Your task to perform on an android device: Open Google Chrome and open the bookmarks view Image 0: 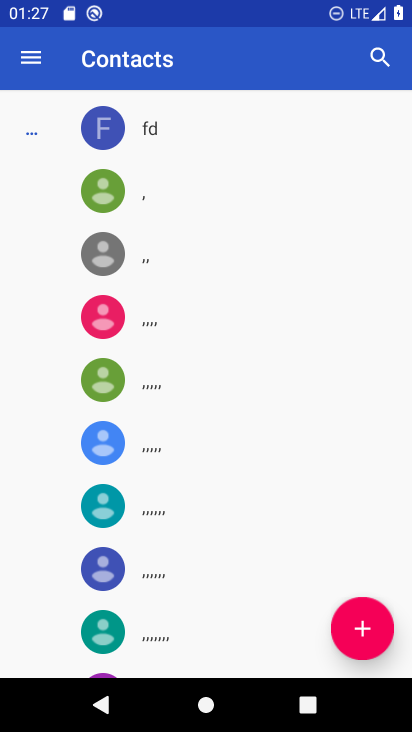
Step 0: drag from (285, 642) to (356, 226)
Your task to perform on an android device: Open Google Chrome and open the bookmarks view Image 1: 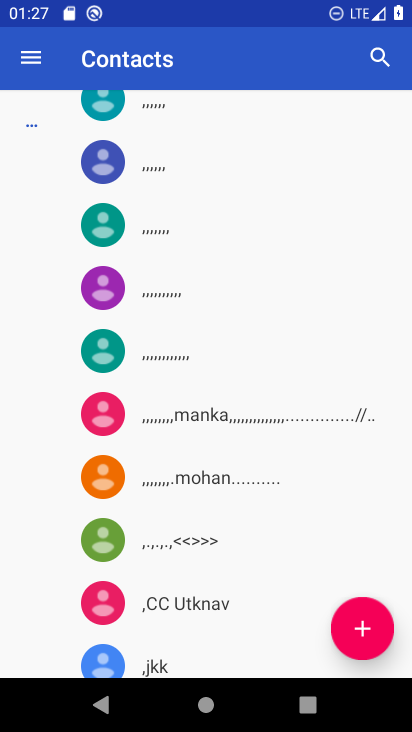
Step 1: press home button
Your task to perform on an android device: Open Google Chrome and open the bookmarks view Image 2: 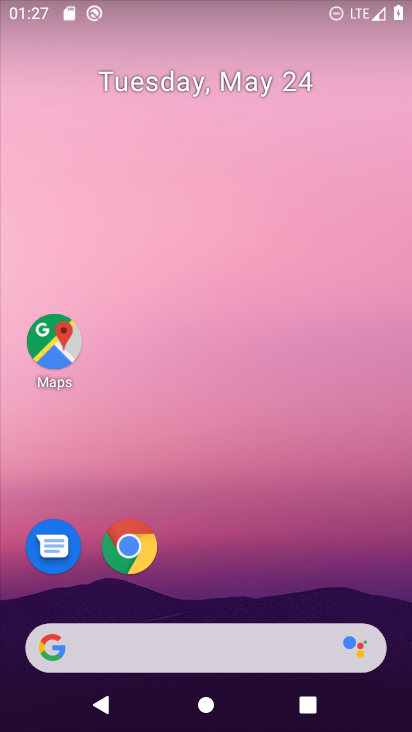
Step 2: drag from (304, 622) to (373, 7)
Your task to perform on an android device: Open Google Chrome and open the bookmarks view Image 3: 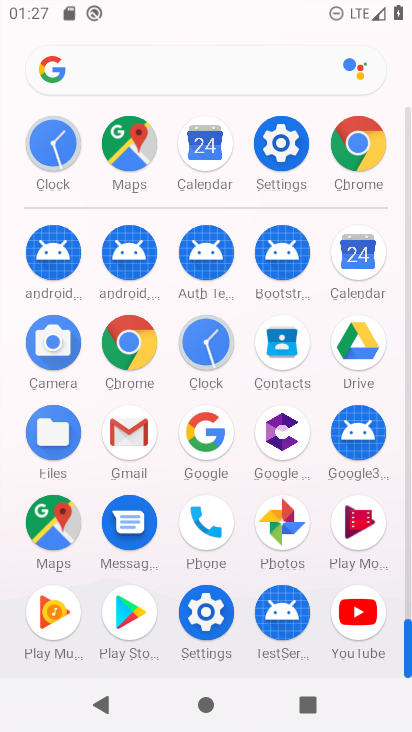
Step 3: click (115, 344)
Your task to perform on an android device: Open Google Chrome and open the bookmarks view Image 4: 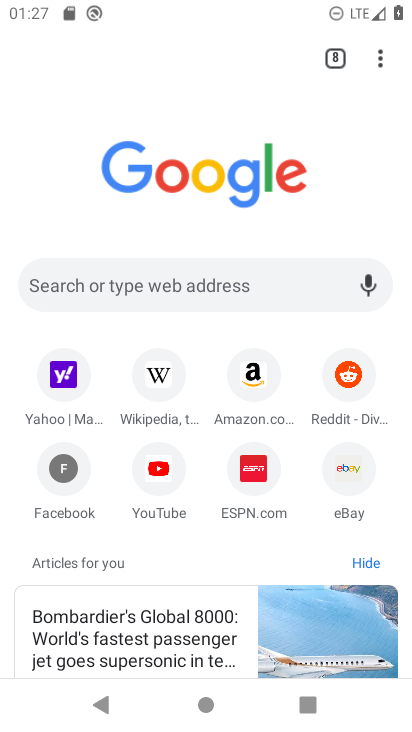
Step 4: task complete